Your task to perform on an android device: View the shopping cart on amazon. Image 0: 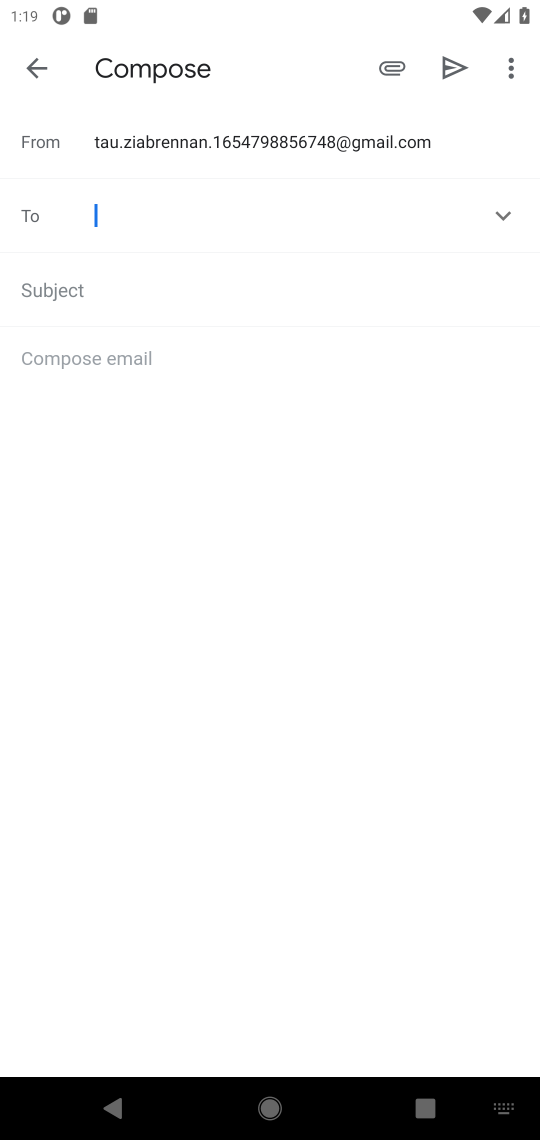
Step 0: press home button
Your task to perform on an android device: View the shopping cart on amazon. Image 1: 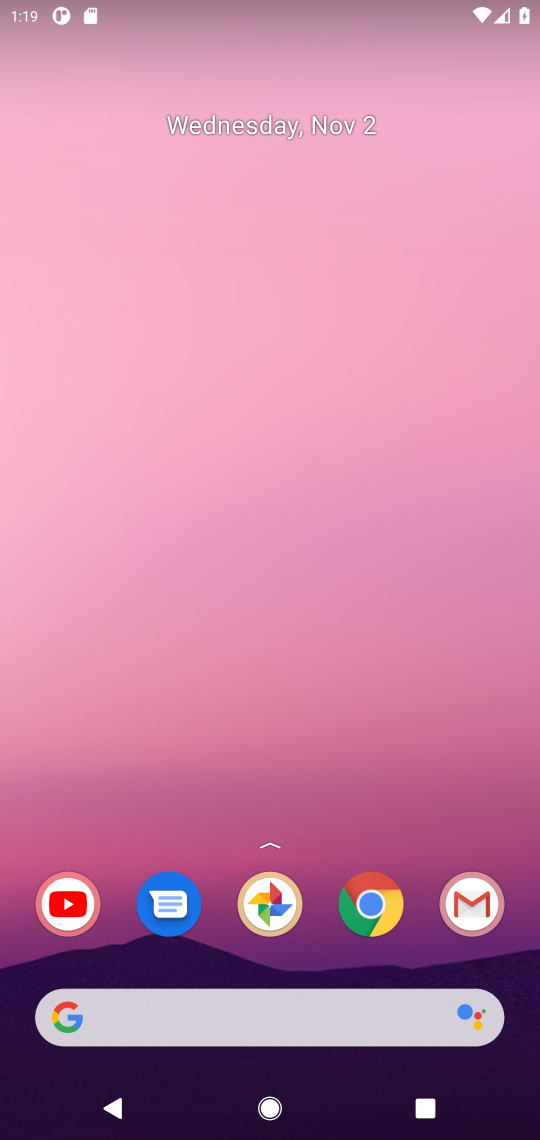
Step 1: press home button
Your task to perform on an android device: View the shopping cart on amazon. Image 2: 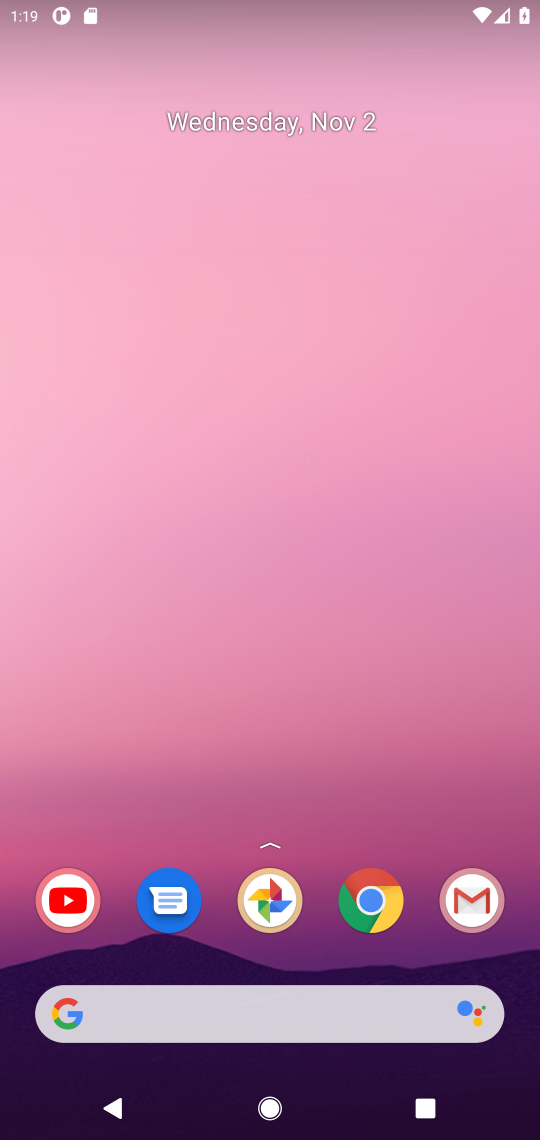
Step 2: click (353, 895)
Your task to perform on an android device: View the shopping cart on amazon. Image 3: 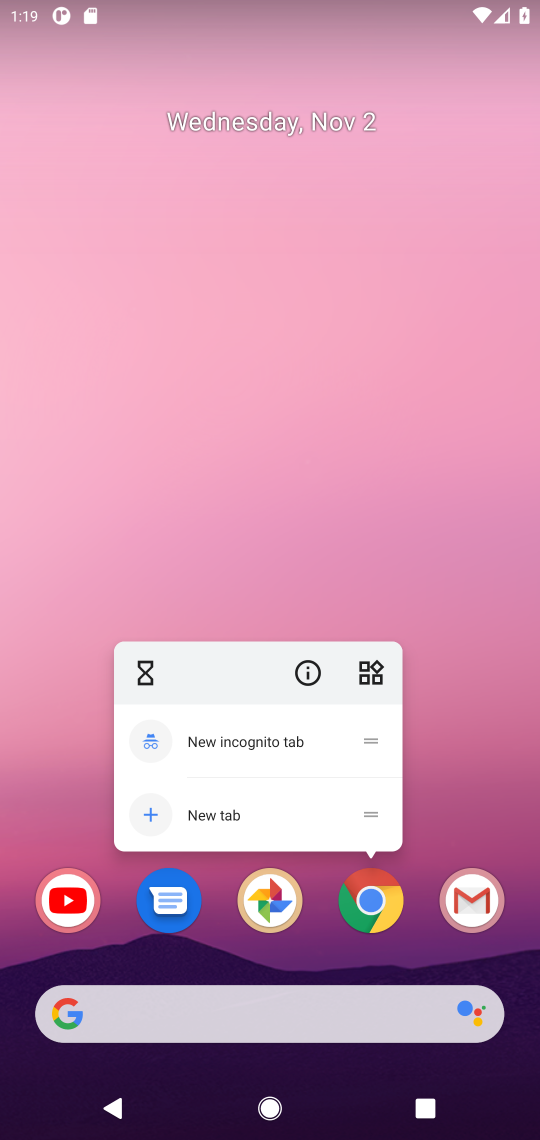
Step 3: click (355, 889)
Your task to perform on an android device: View the shopping cart on amazon. Image 4: 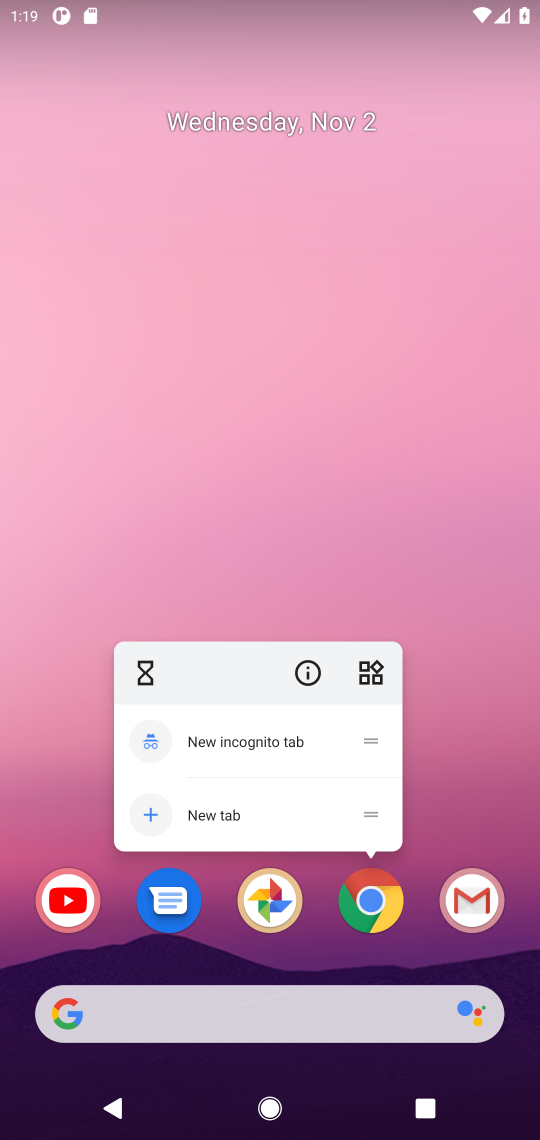
Step 4: click (358, 886)
Your task to perform on an android device: View the shopping cart on amazon. Image 5: 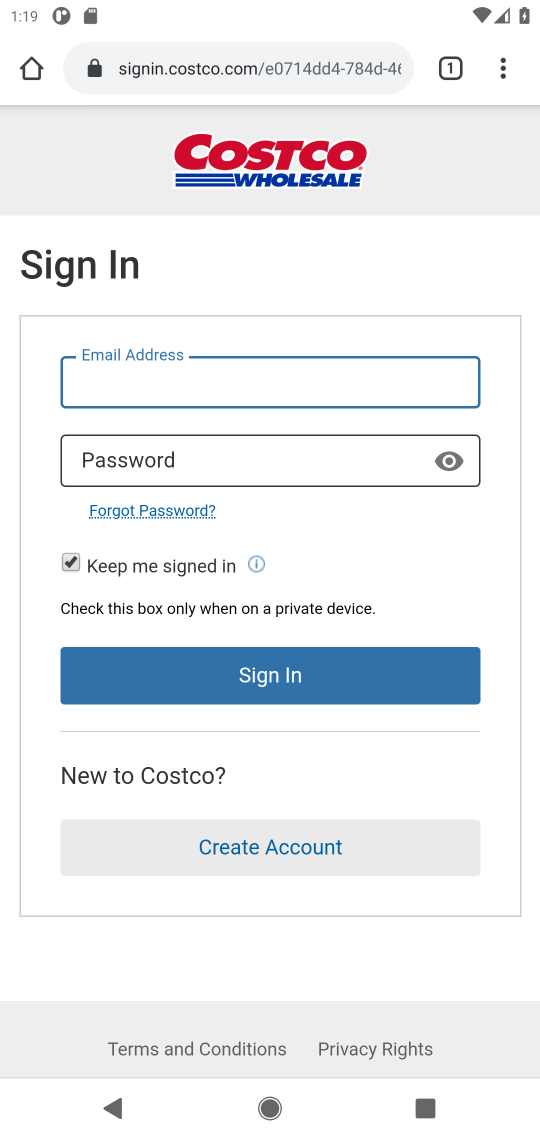
Step 5: click (257, 74)
Your task to perform on an android device: View the shopping cart on amazon. Image 6: 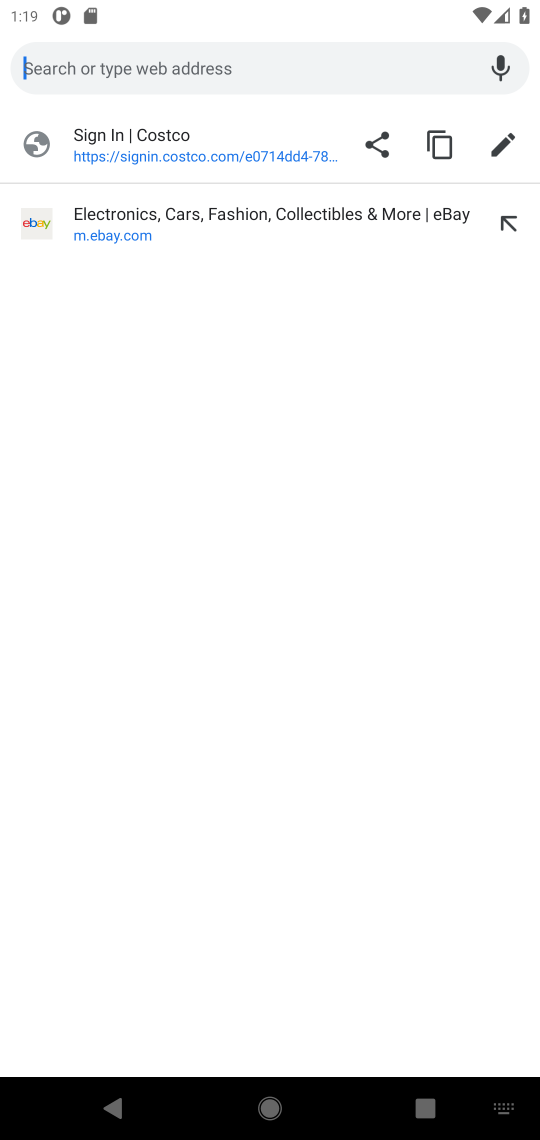
Step 6: type "amazon"
Your task to perform on an android device: View the shopping cart on amazon. Image 7: 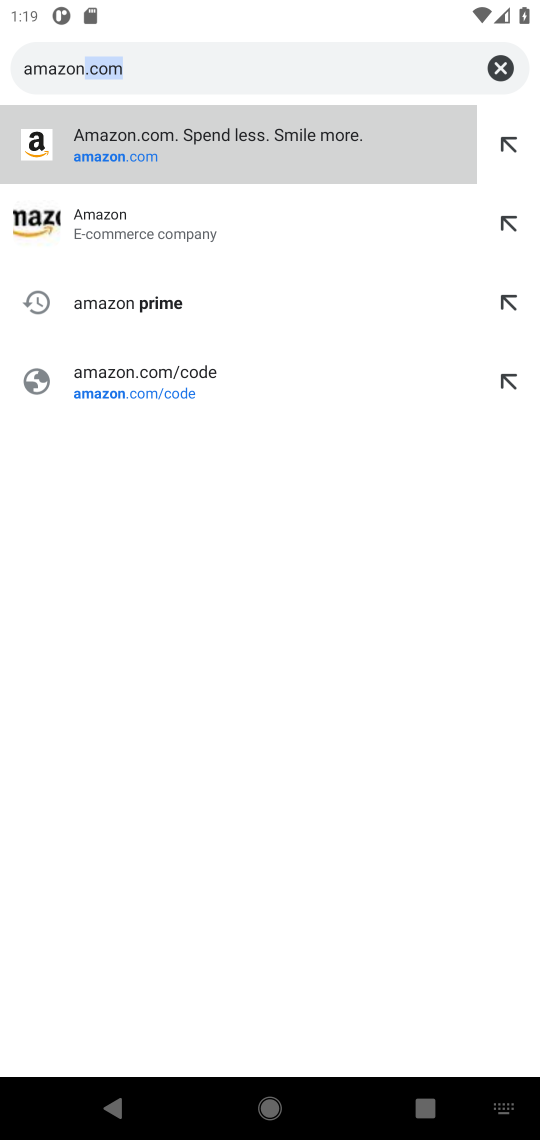
Step 7: click (127, 167)
Your task to perform on an android device: View the shopping cart on amazon. Image 8: 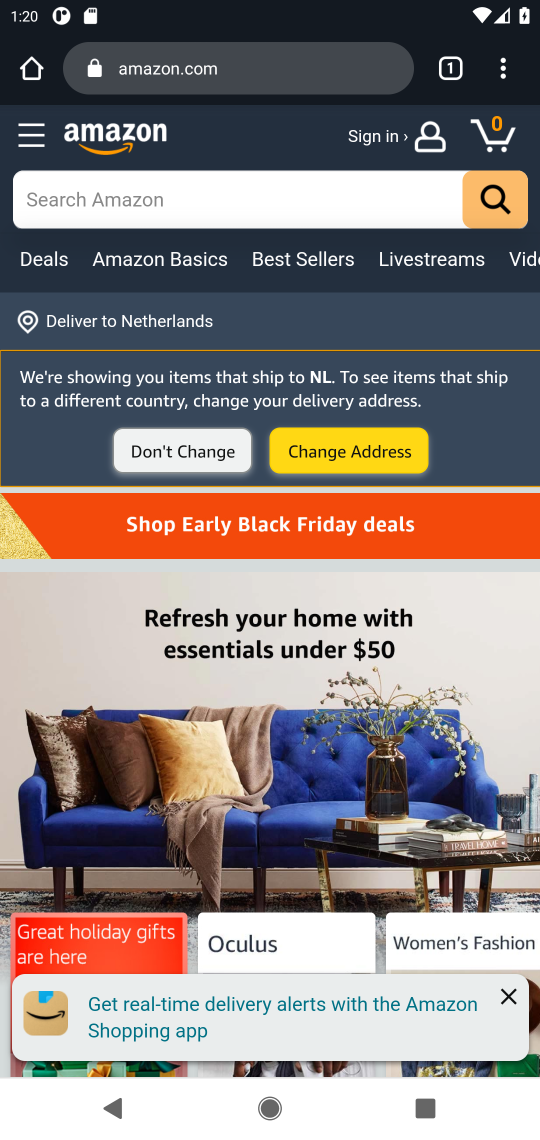
Step 8: click (484, 146)
Your task to perform on an android device: View the shopping cart on amazon. Image 9: 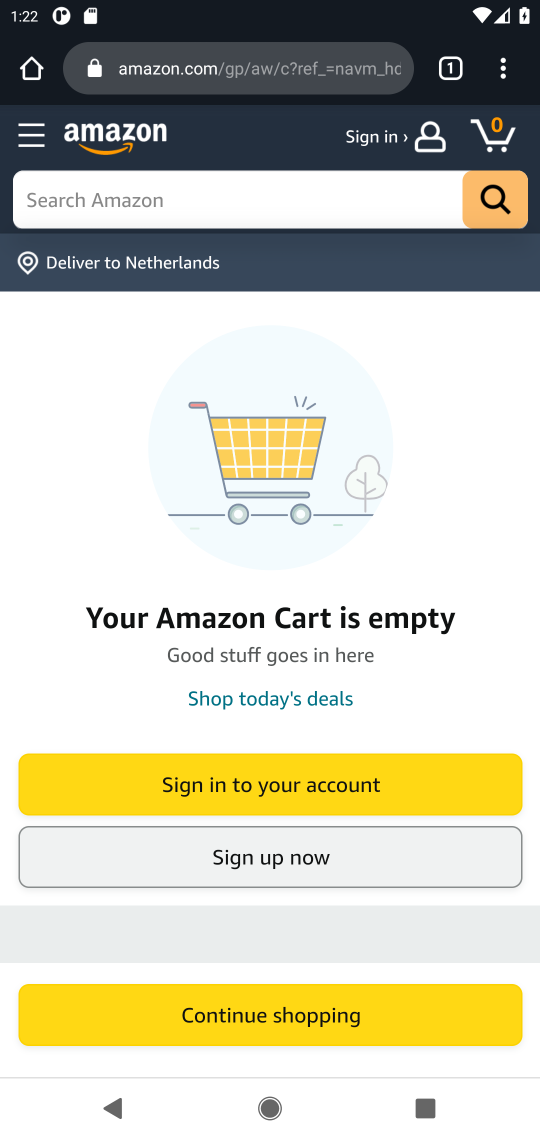
Step 9: task complete